Your task to perform on an android device: Open wifi settings Image 0: 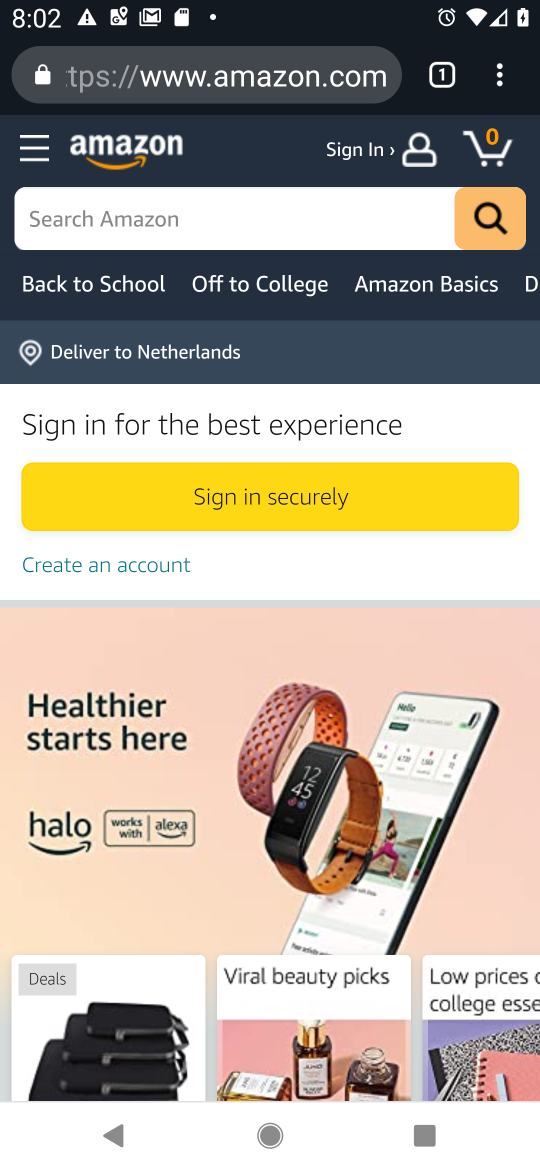
Step 0: press home button
Your task to perform on an android device: Open wifi settings Image 1: 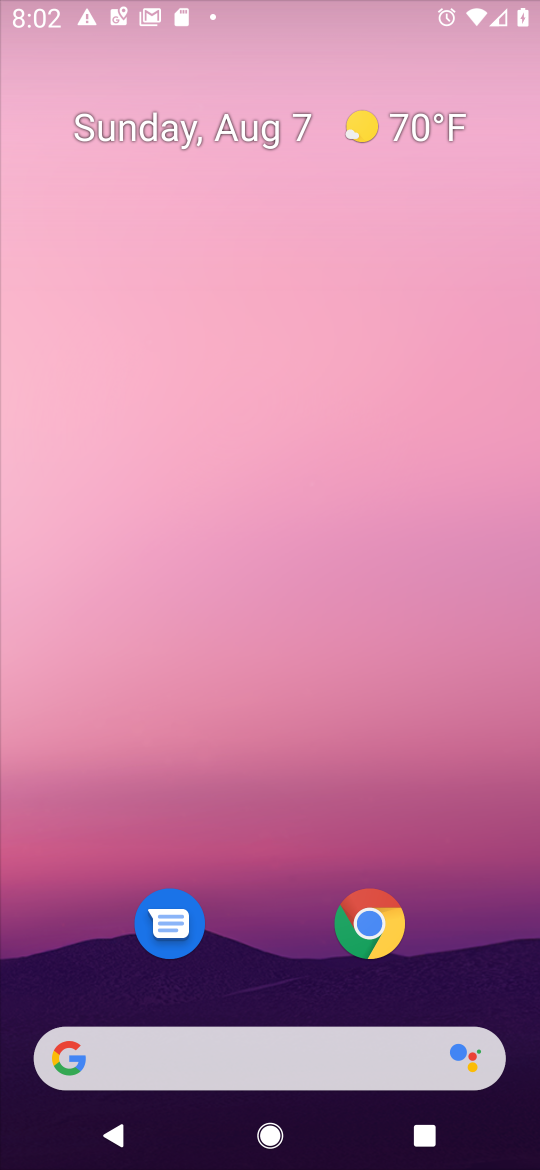
Step 1: drag from (488, 959) to (287, 76)
Your task to perform on an android device: Open wifi settings Image 2: 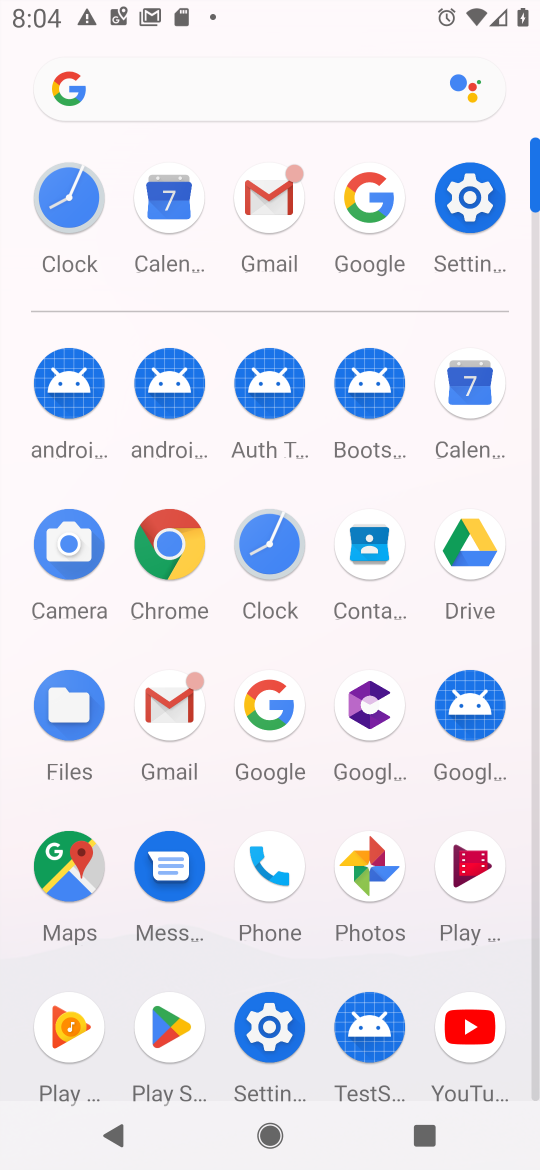
Step 2: click (288, 1007)
Your task to perform on an android device: Open wifi settings Image 3: 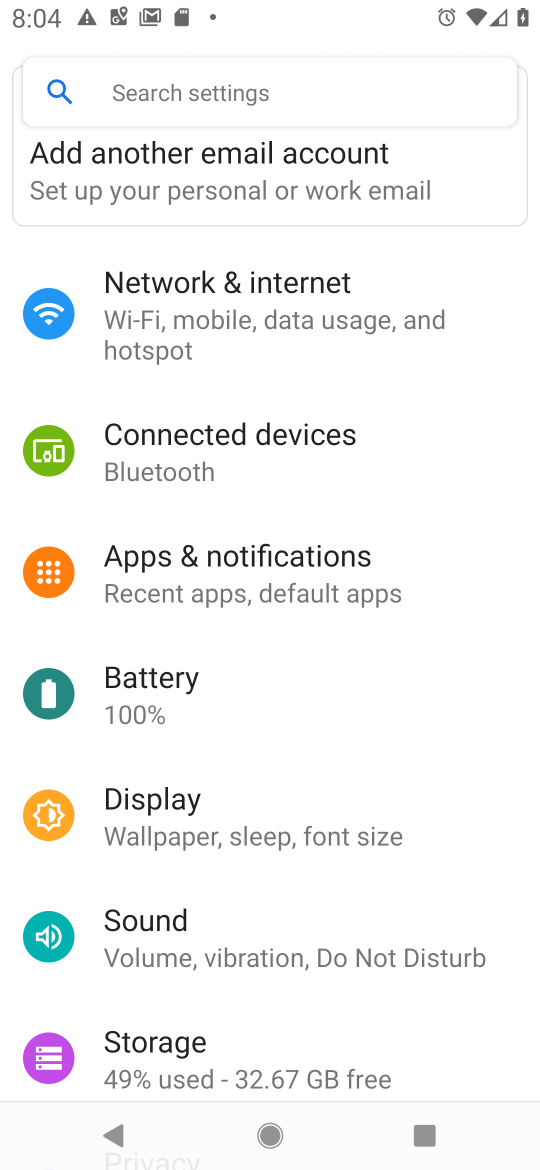
Step 3: click (181, 358)
Your task to perform on an android device: Open wifi settings Image 4: 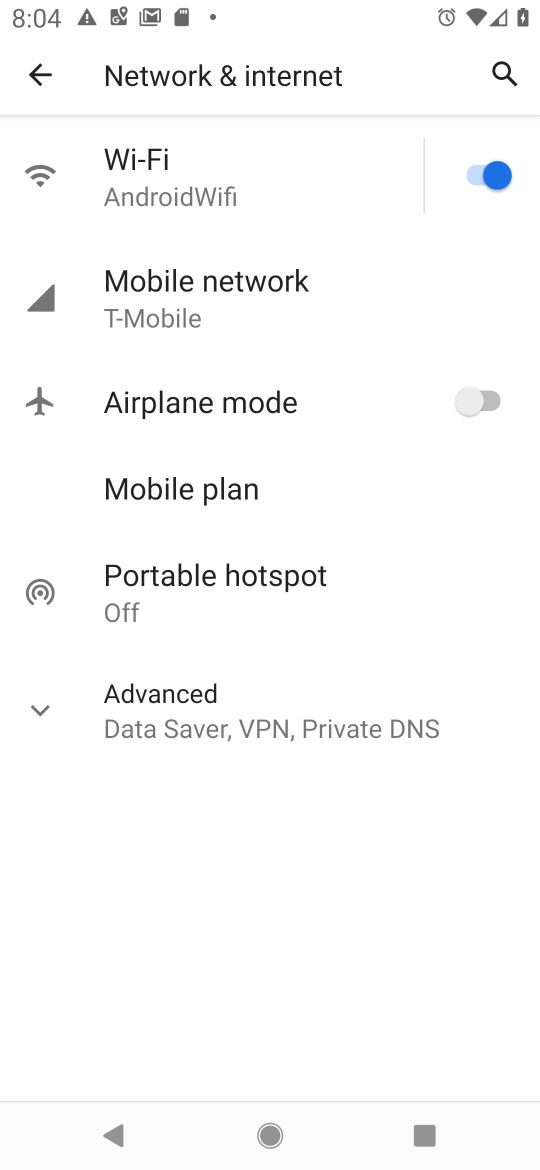
Step 4: click (185, 180)
Your task to perform on an android device: Open wifi settings Image 5: 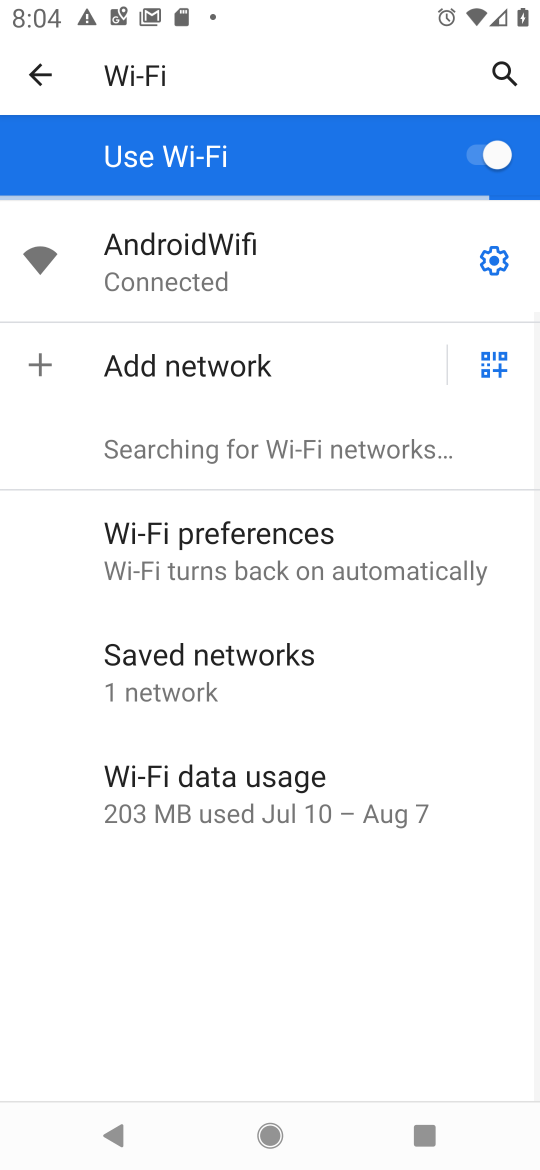
Step 5: task complete